Your task to perform on an android device: Check the news Image 0: 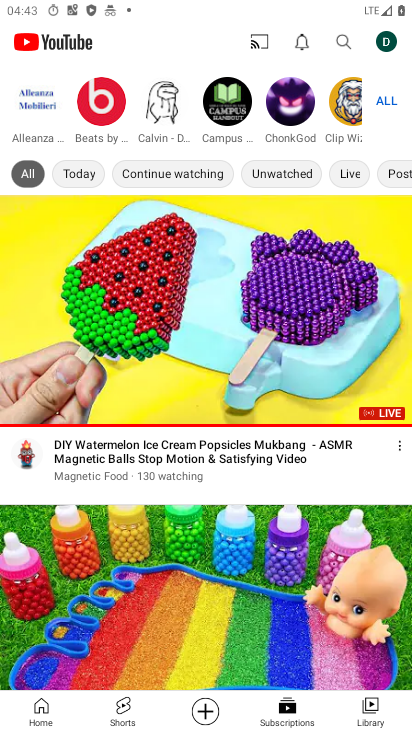
Step 0: drag from (182, 571) to (169, 83)
Your task to perform on an android device: Check the news Image 1: 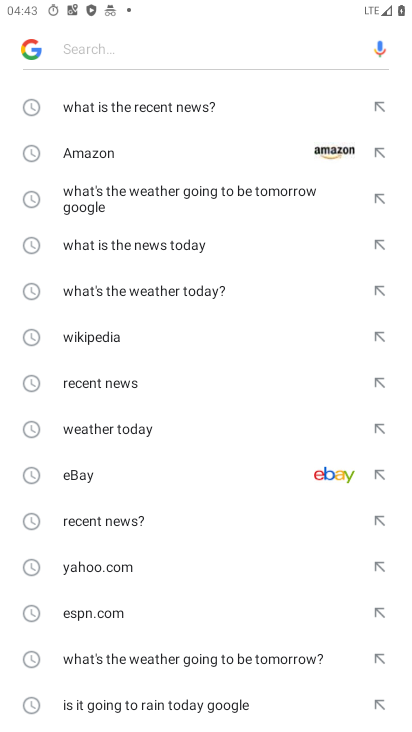
Step 1: press home button
Your task to perform on an android device: Check the news Image 2: 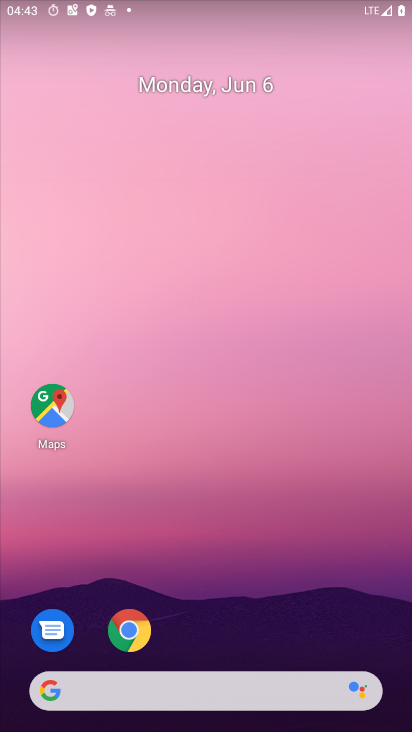
Step 2: drag from (179, 629) to (216, 161)
Your task to perform on an android device: Check the news Image 3: 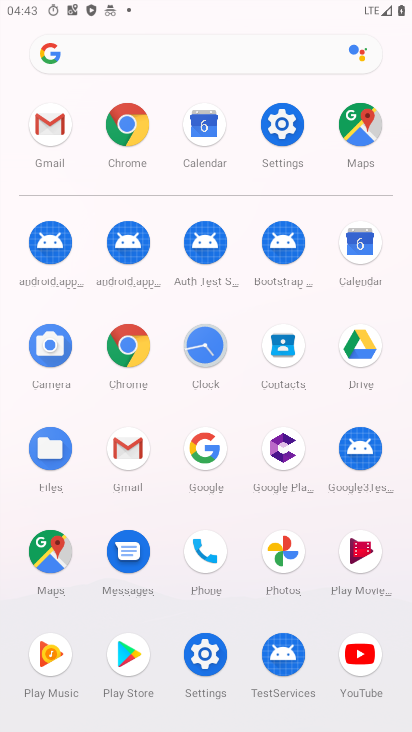
Step 3: click (131, 348)
Your task to perform on an android device: Check the news Image 4: 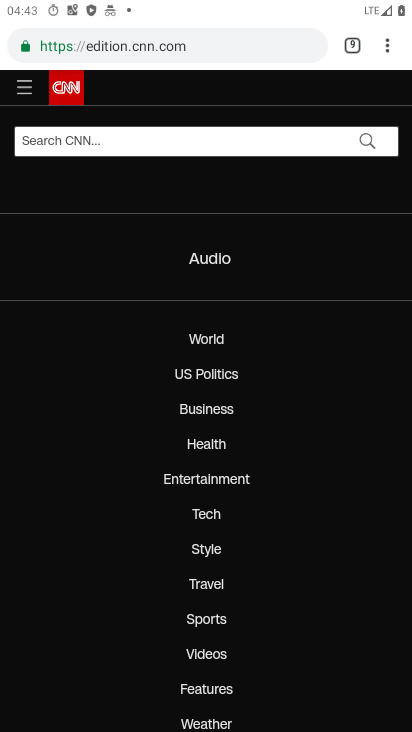
Step 4: type "Check the news"
Your task to perform on an android device: Check the news Image 5: 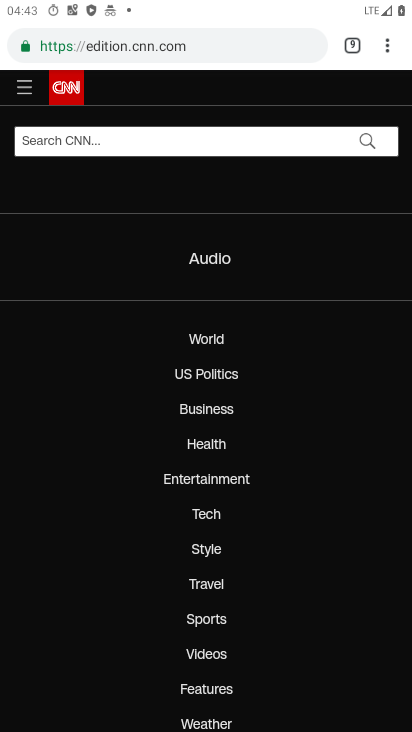
Step 5: click (210, 45)
Your task to perform on an android device: Check the news Image 6: 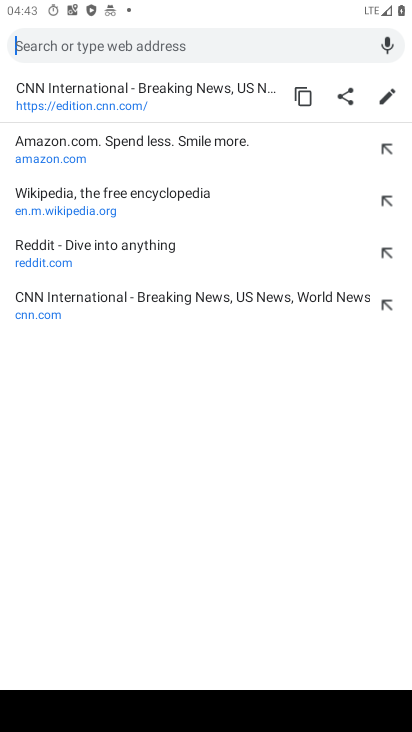
Step 6: type "Check the news"
Your task to perform on an android device: Check the news Image 7: 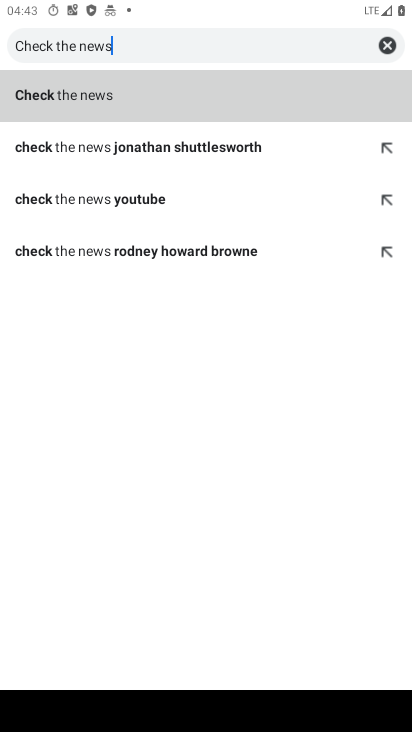
Step 7: click (85, 98)
Your task to perform on an android device: Check the news Image 8: 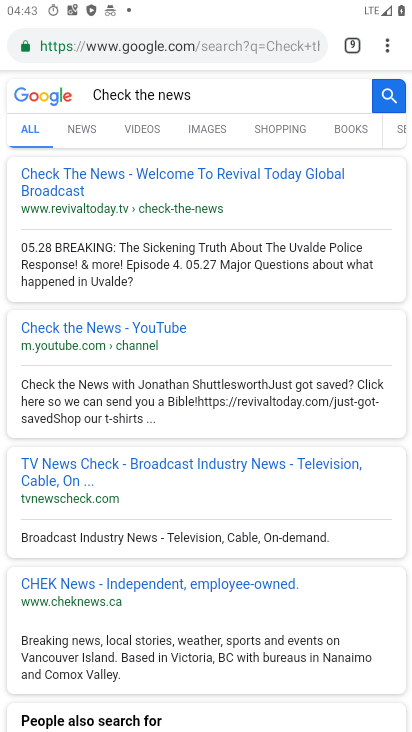
Step 8: task complete